Your task to perform on an android device: Go to network settings Image 0: 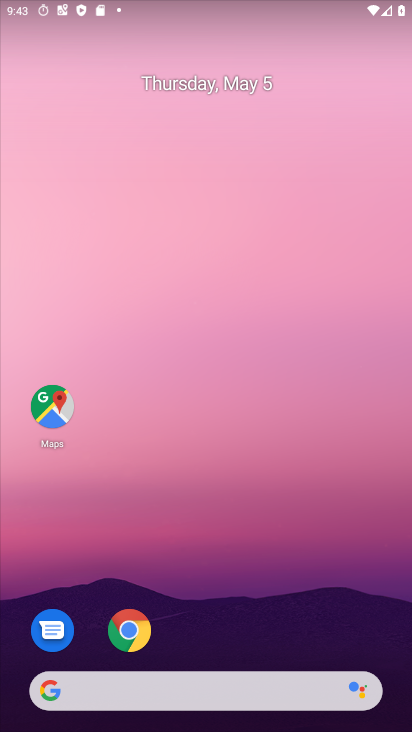
Step 0: drag from (175, 584) to (65, 124)
Your task to perform on an android device: Go to network settings Image 1: 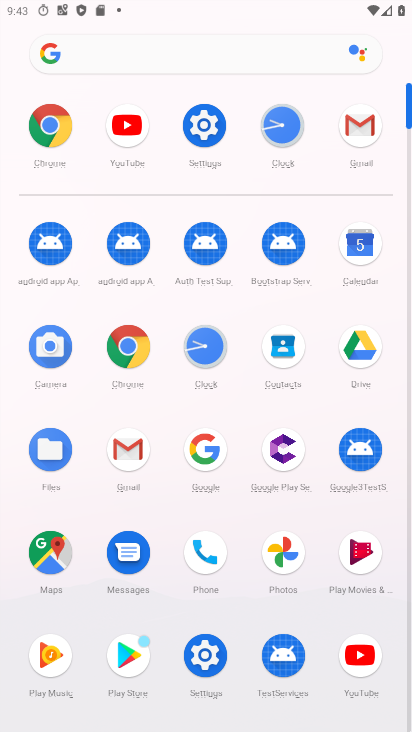
Step 1: click (205, 123)
Your task to perform on an android device: Go to network settings Image 2: 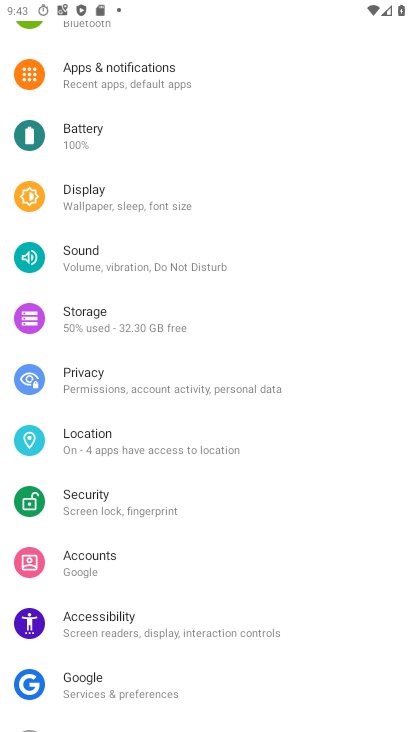
Step 2: drag from (199, 116) to (157, 503)
Your task to perform on an android device: Go to network settings Image 3: 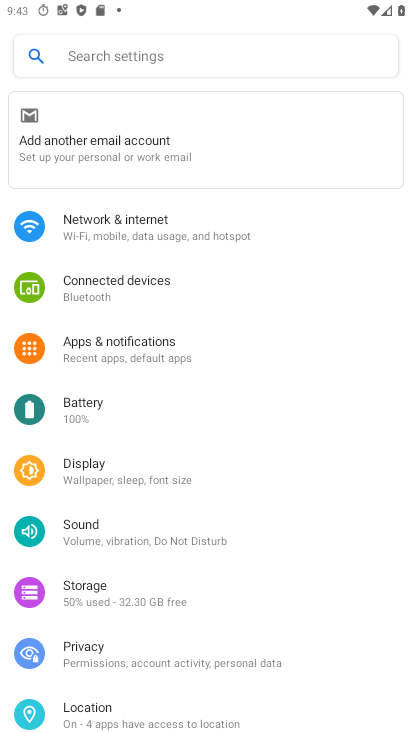
Step 3: click (118, 225)
Your task to perform on an android device: Go to network settings Image 4: 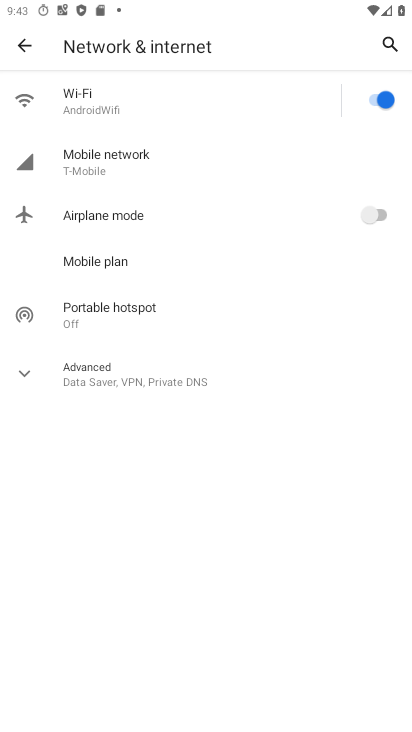
Step 4: click (97, 172)
Your task to perform on an android device: Go to network settings Image 5: 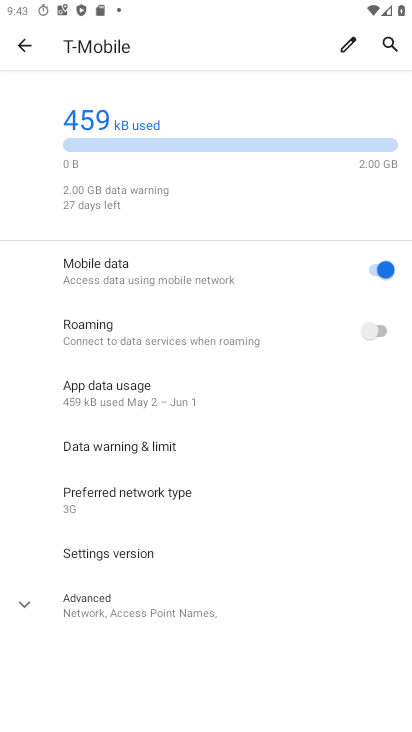
Step 5: task complete